Your task to perform on an android device: Go to calendar. Show me events next week Image 0: 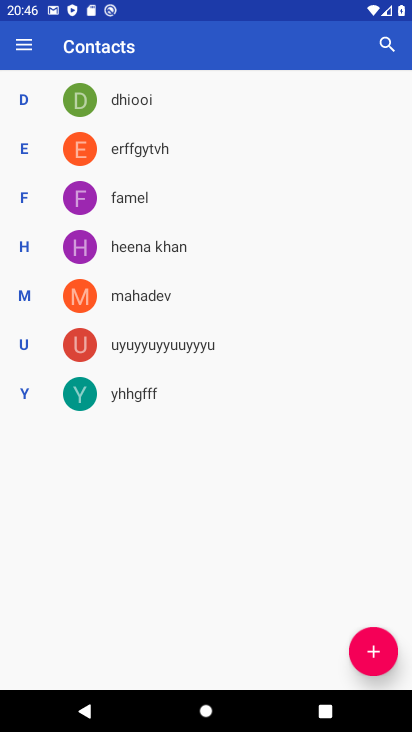
Step 0: press home button
Your task to perform on an android device: Go to calendar. Show me events next week Image 1: 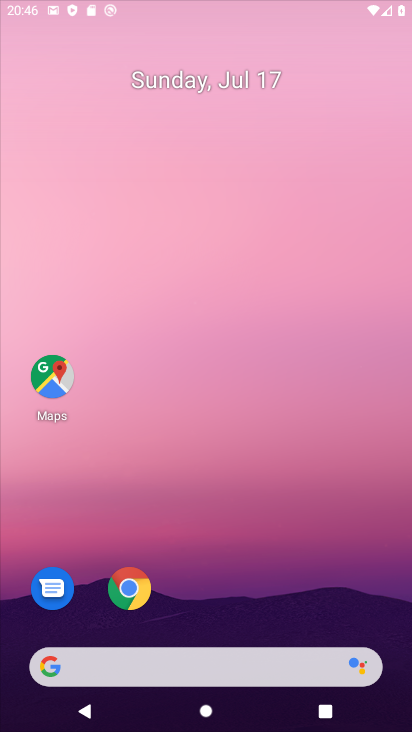
Step 1: drag from (266, 634) to (399, 37)
Your task to perform on an android device: Go to calendar. Show me events next week Image 2: 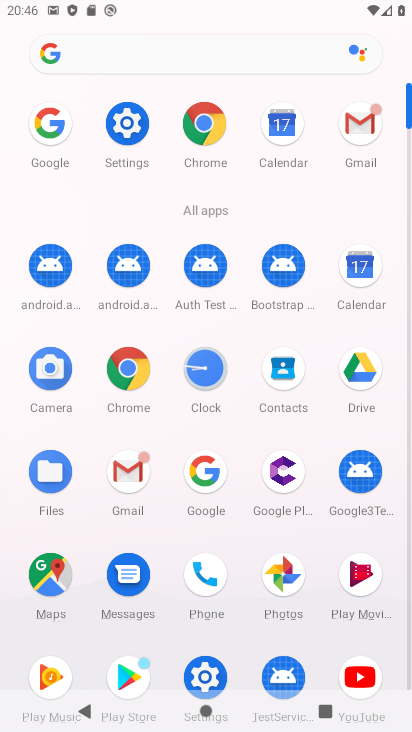
Step 2: click (371, 261)
Your task to perform on an android device: Go to calendar. Show me events next week Image 3: 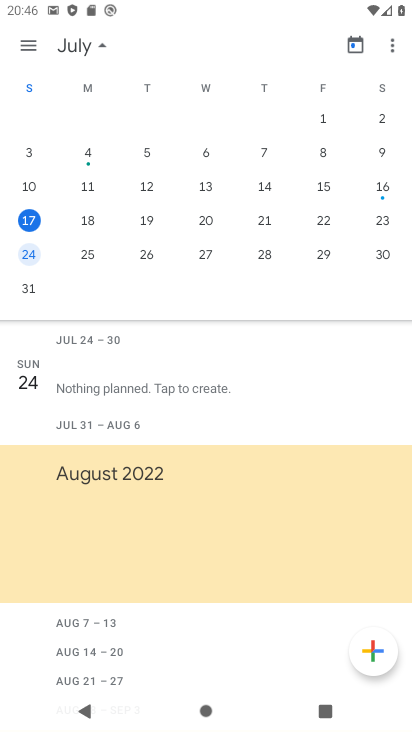
Step 3: click (23, 255)
Your task to perform on an android device: Go to calendar. Show me events next week Image 4: 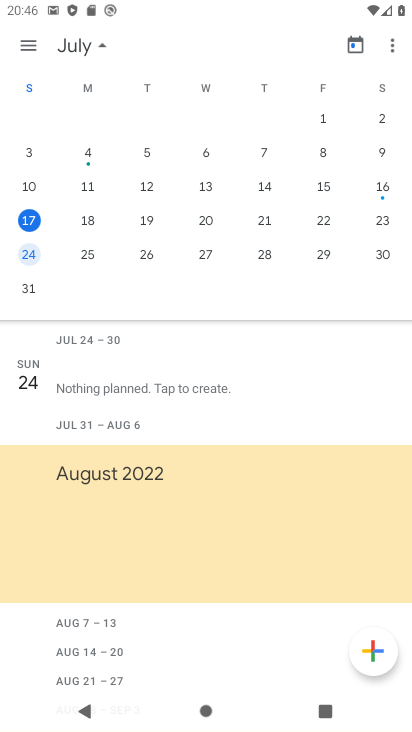
Step 4: task complete